Your task to perform on an android device: Go to Yahoo.com Image 0: 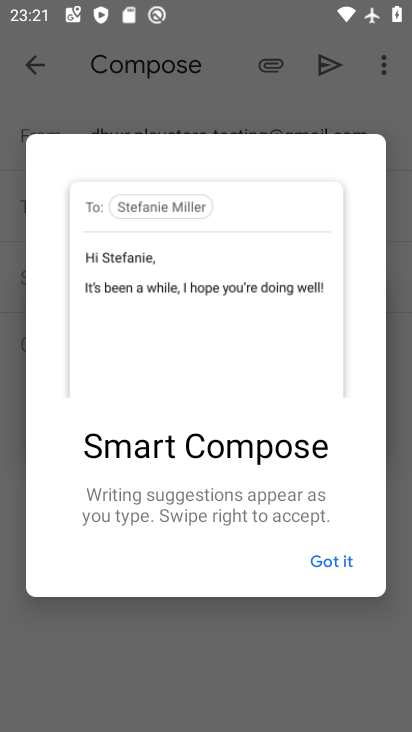
Step 0: press back button
Your task to perform on an android device: Go to Yahoo.com Image 1: 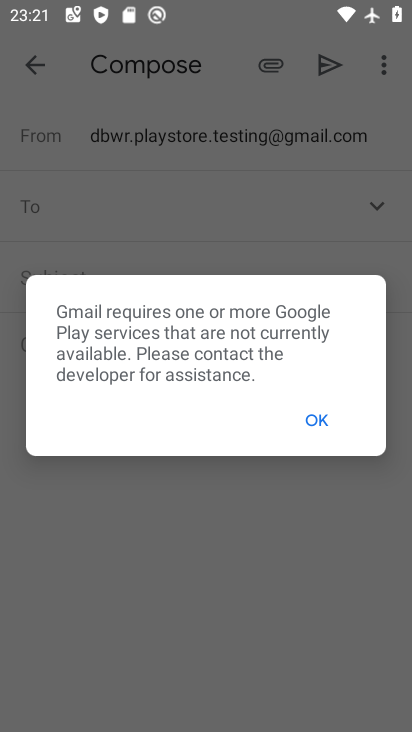
Step 1: press home button
Your task to perform on an android device: Go to Yahoo.com Image 2: 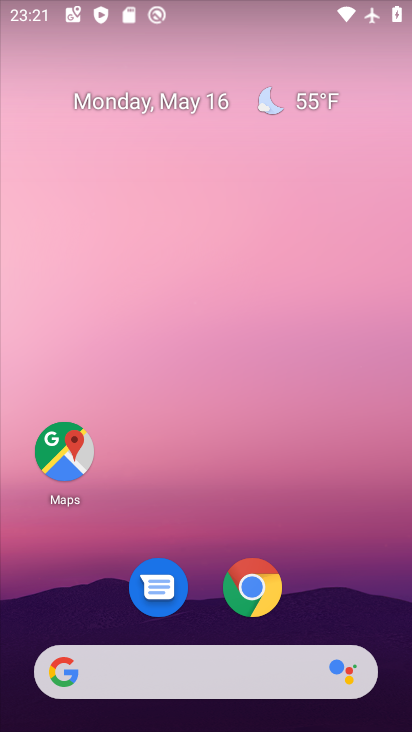
Step 2: drag from (308, 520) to (261, 40)
Your task to perform on an android device: Go to Yahoo.com Image 3: 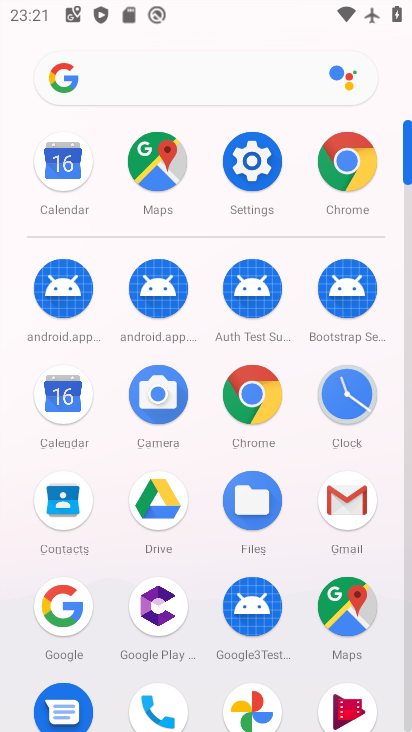
Step 3: click (259, 393)
Your task to perform on an android device: Go to Yahoo.com Image 4: 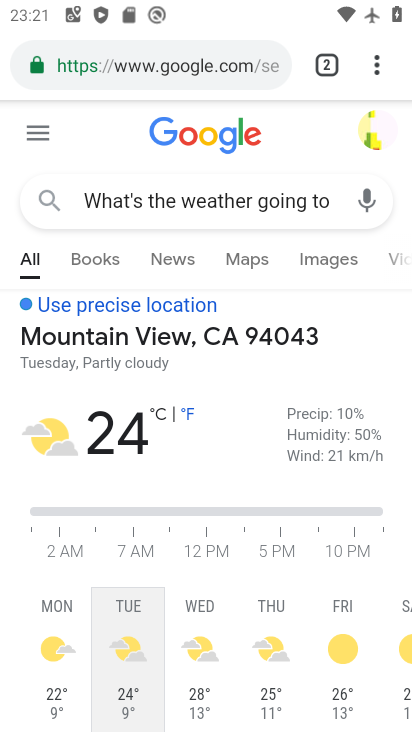
Step 4: click (165, 63)
Your task to perform on an android device: Go to Yahoo.com Image 5: 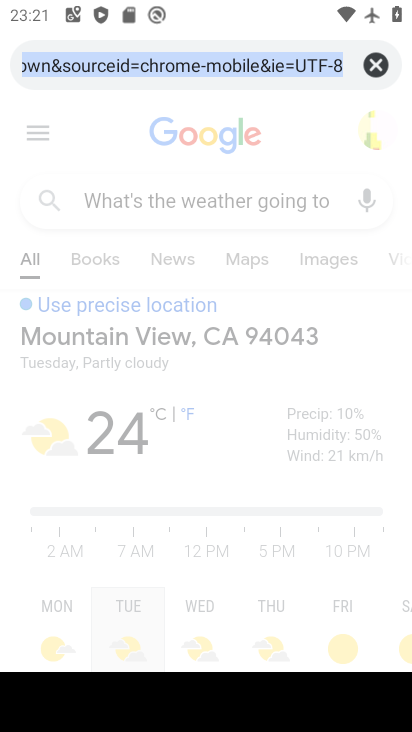
Step 5: click (376, 62)
Your task to perform on an android device: Go to Yahoo.com Image 6: 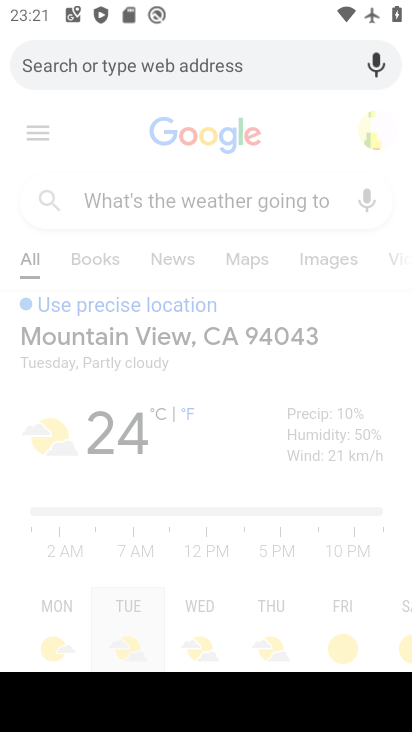
Step 6: type " Yahoo.com"
Your task to perform on an android device: Go to Yahoo.com Image 7: 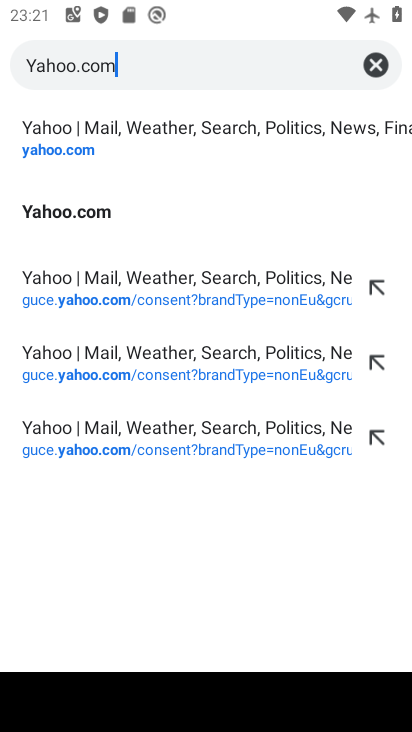
Step 7: type ""
Your task to perform on an android device: Go to Yahoo.com Image 8: 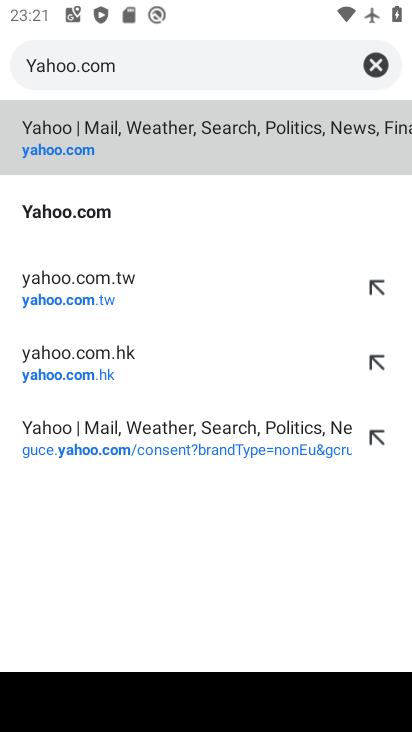
Step 8: click (173, 135)
Your task to perform on an android device: Go to Yahoo.com Image 9: 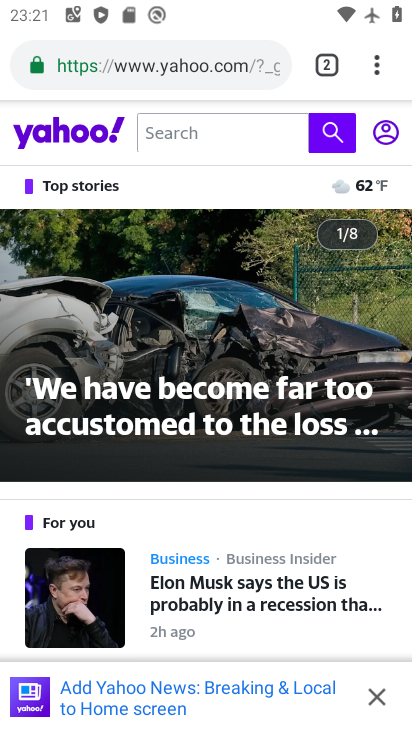
Step 9: task complete